Your task to perform on an android device: turn on airplane mode Image 0: 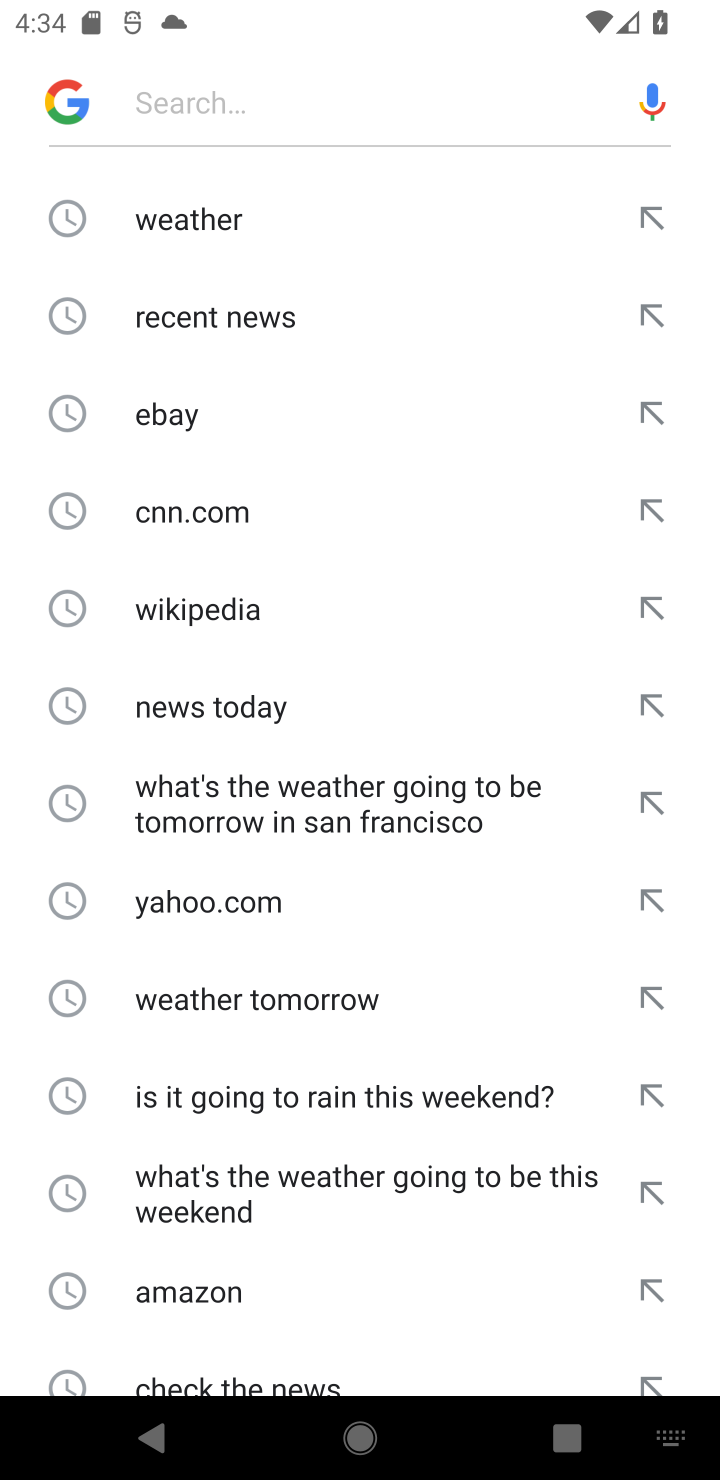
Step 0: press back button
Your task to perform on an android device: turn on airplane mode Image 1: 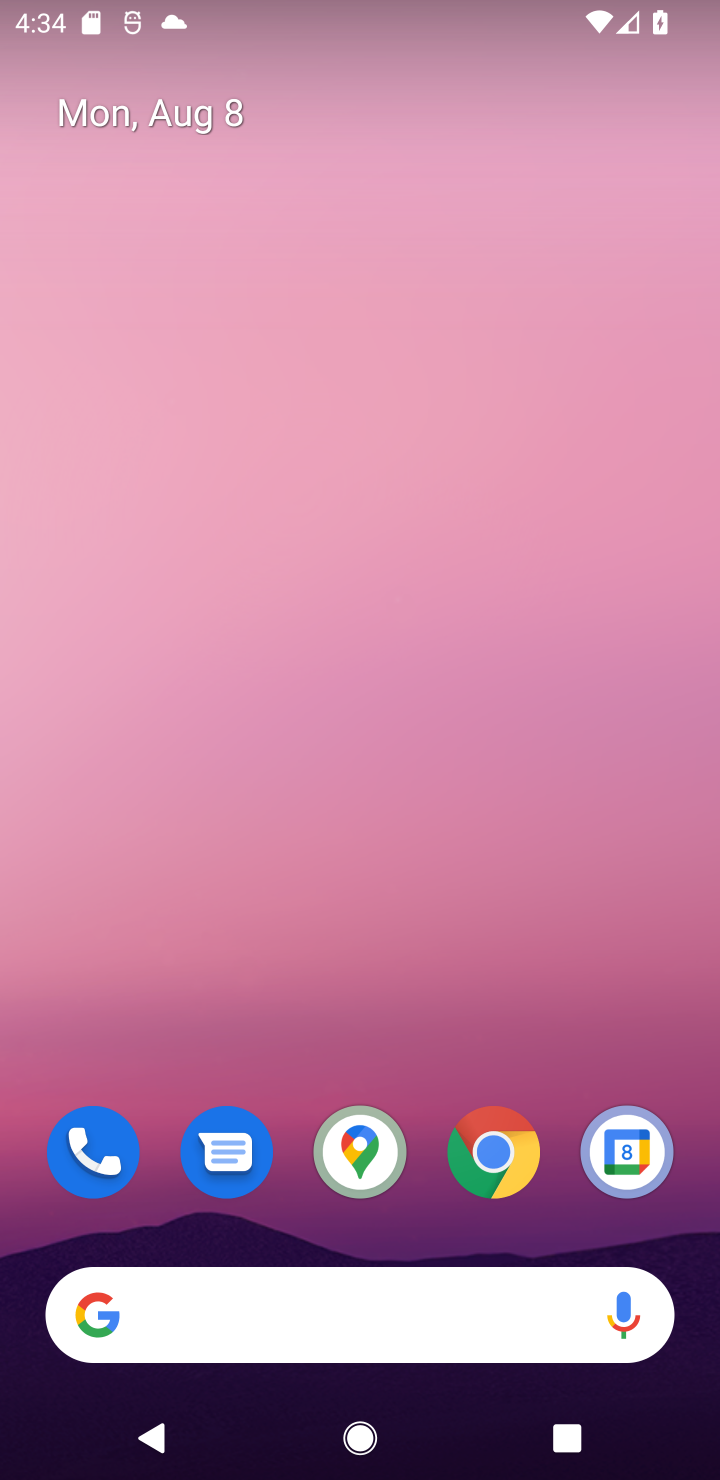
Step 1: drag from (616, 25) to (486, 1009)
Your task to perform on an android device: turn on airplane mode Image 2: 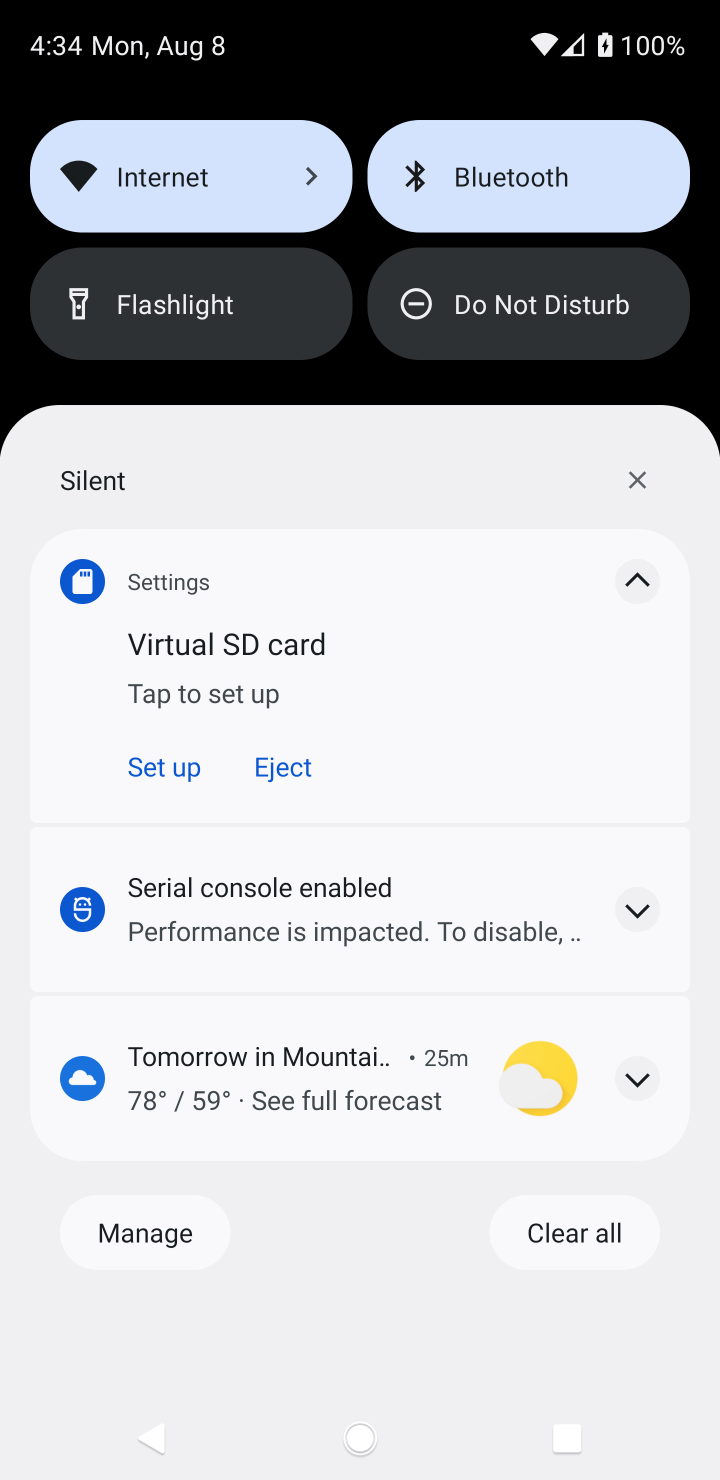
Step 2: drag from (377, 400) to (322, 1279)
Your task to perform on an android device: turn on airplane mode Image 3: 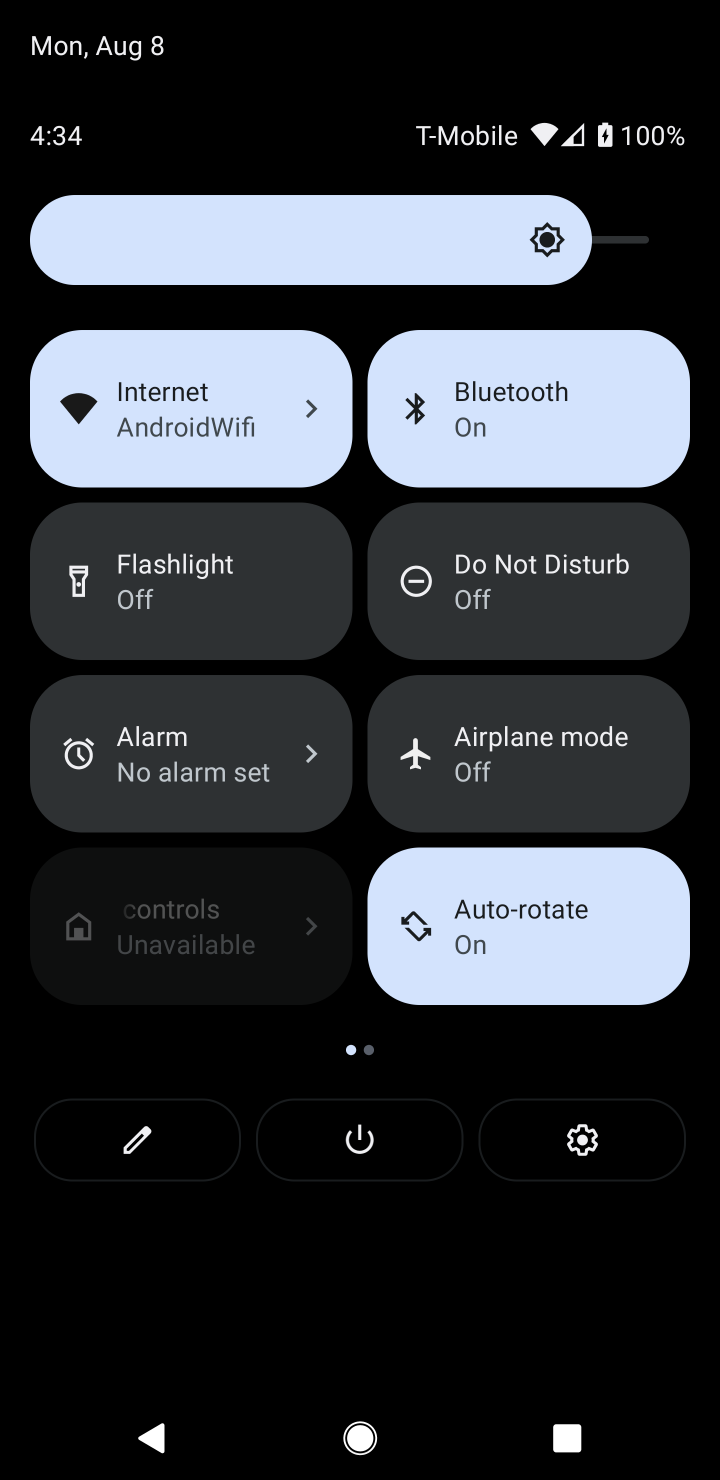
Step 3: click (486, 747)
Your task to perform on an android device: turn on airplane mode Image 4: 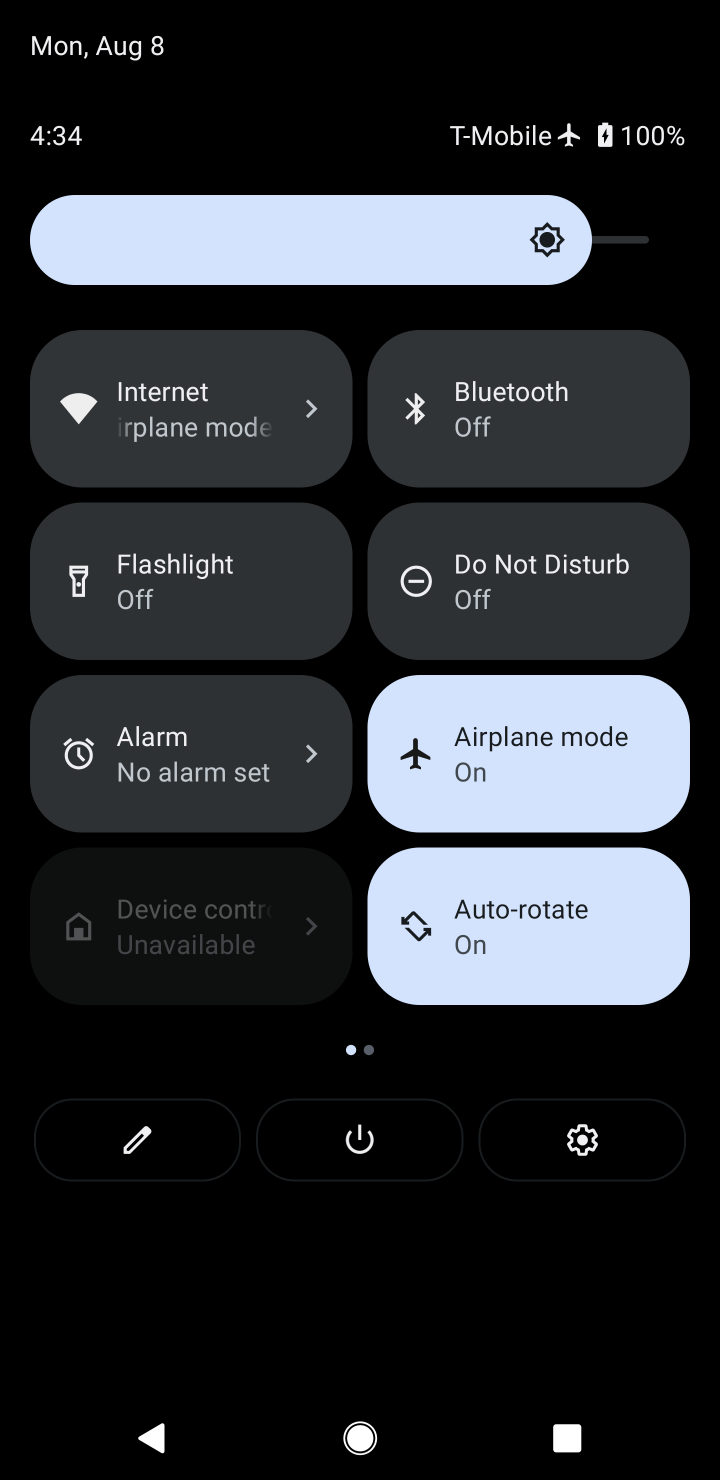
Step 4: task complete